Your task to perform on an android device: turn off javascript in the chrome app Image 0: 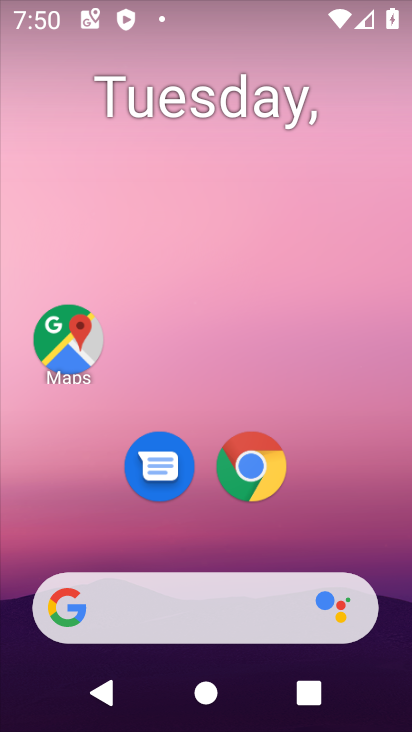
Step 0: press home button
Your task to perform on an android device: turn off javascript in the chrome app Image 1: 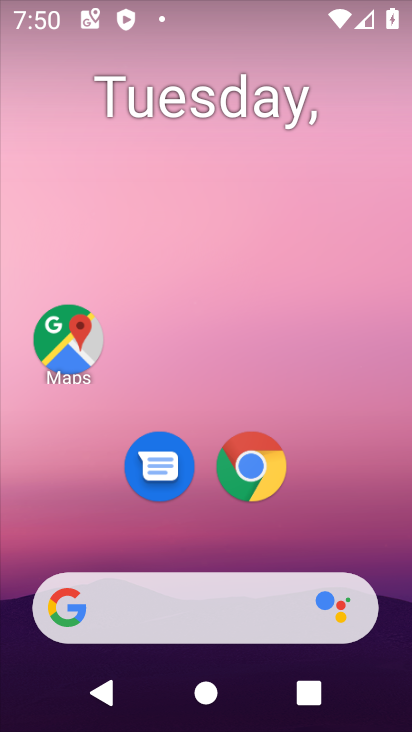
Step 1: click (248, 456)
Your task to perform on an android device: turn off javascript in the chrome app Image 2: 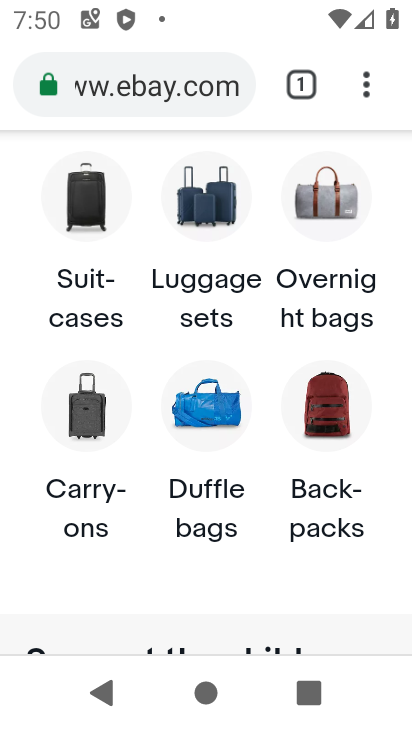
Step 2: click (370, 67)
Your task to perform on an android device: turn off javascript in the chrome app Image 3: 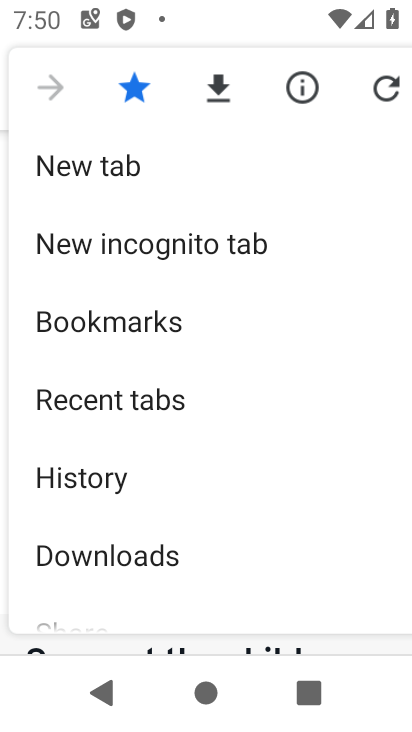
Step 3: drag from (203, 563) to (212, 99)
Your task to perform on an android device: turn off javascript in the chrome app Image 4: 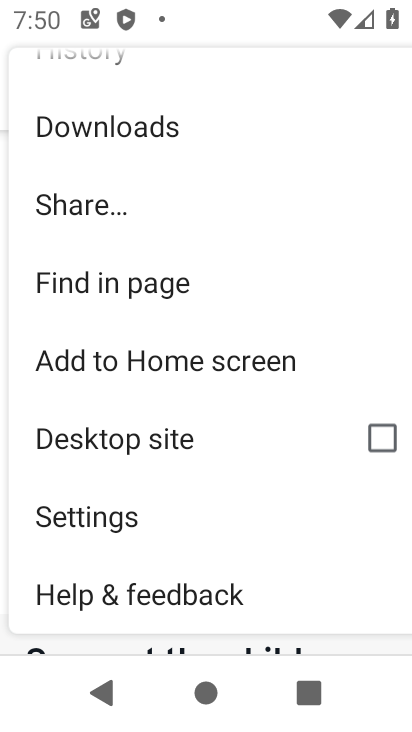
Step 4: click (146, 513)
Your task to perform on an android device: turn off javascript in the chrome app Image 5: 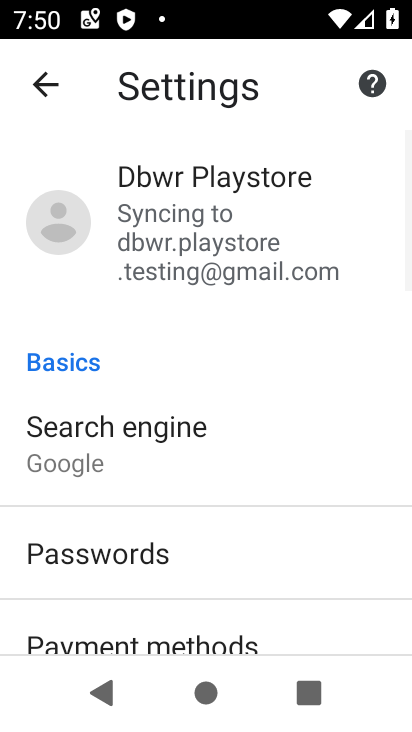
Step 5: drag from (275, 615) to (317, 87)
Your task to perform on an android device: turn off javascript in the chrome app Image 6: 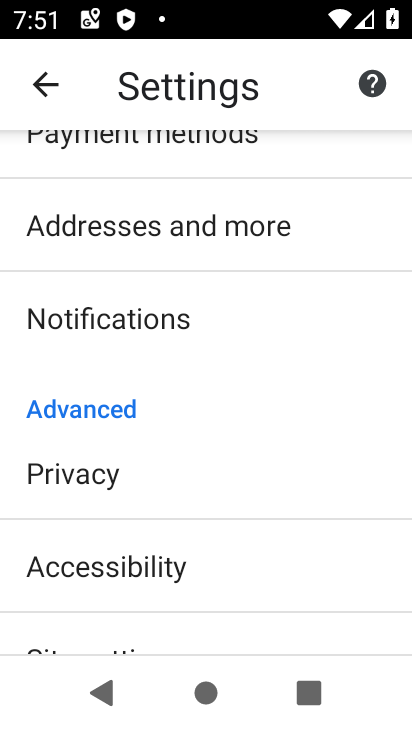
Step 6: drag from (236, 577) to (229, 158)
Your task to perform on an android device: turn off javascript in the chrome app Image 7: 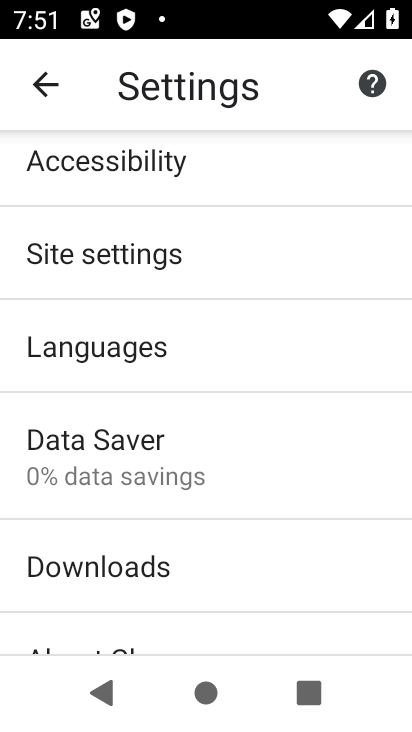
Step 7: click (200, 249)
Your task to perform on an android device: turn off javascript in the chrome app Image 8: 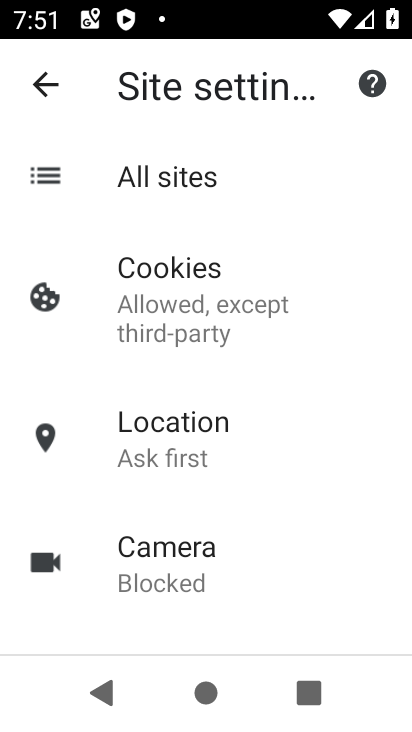
Step 8: drag from (249, 577) to (269, 129)
Your task to perform on an android device: turn off javascript in the chrome app Image 9: 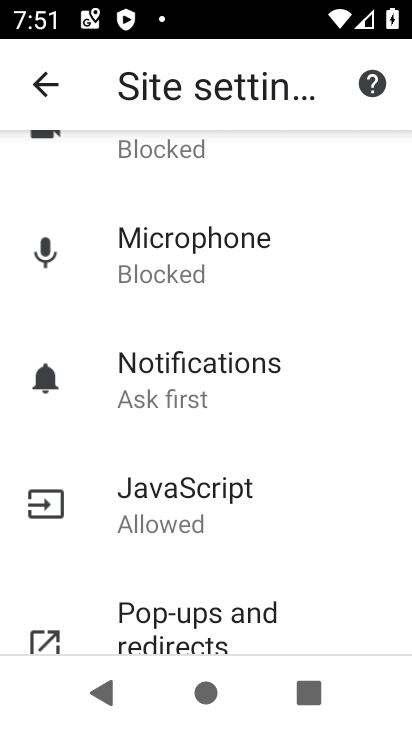
Step 9: click (223, 513)
Your task to perform on an android device: turn off javascript in the chrome app Image 10: 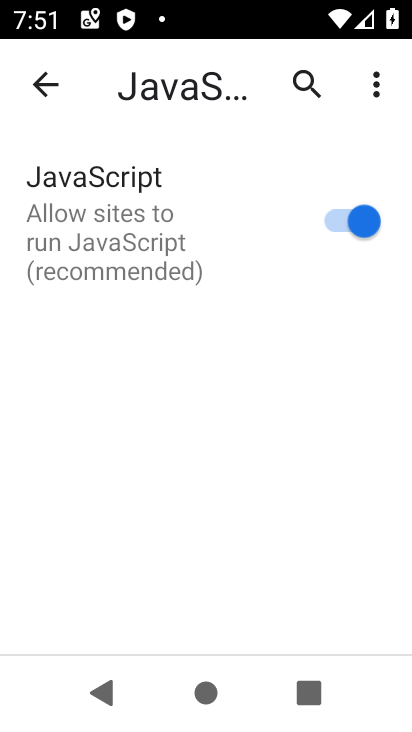
Step 10: click (342, 211)
Your task to perform on an android device: turn off javascript in the chrome app Image 11: 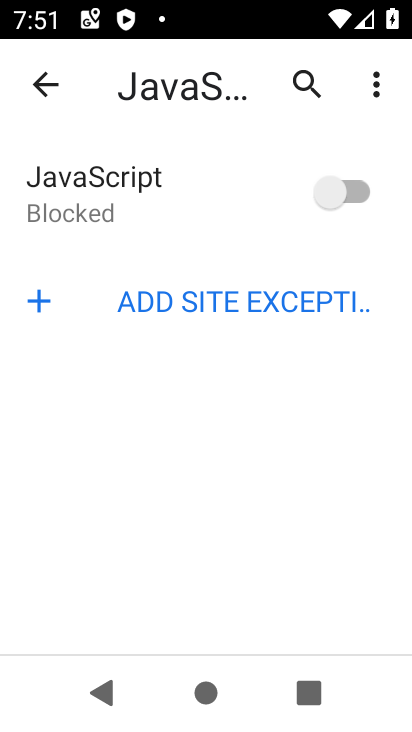
Step 11: task complete